Your task to perform on an android device: open sync settings in chrome Image 0: 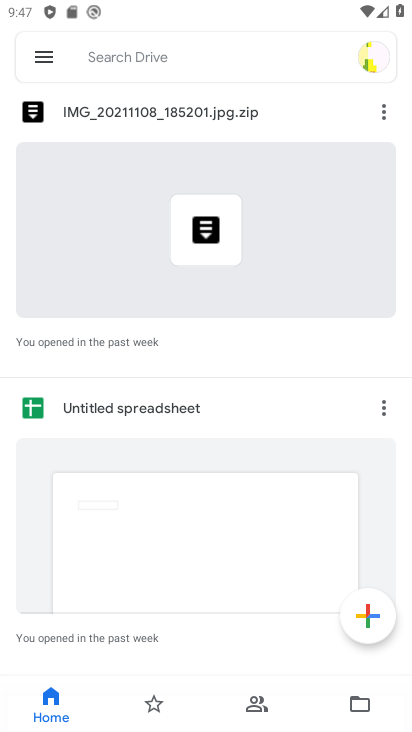
Step 0: press home button
Your task to perform on an android device: open sync settings in chrome Image 1: 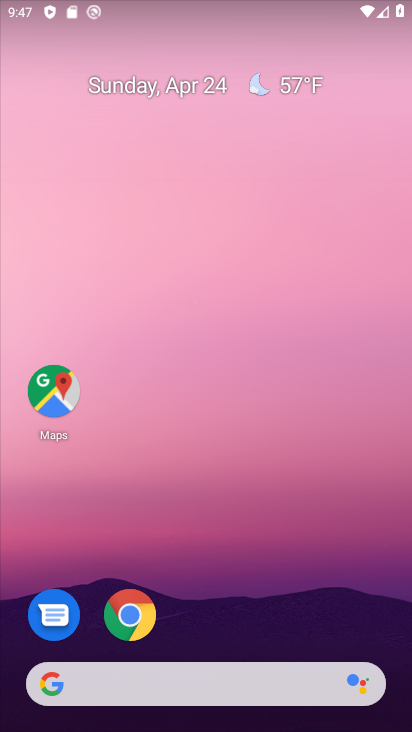
Step 1: click (127, 611)
Your task to perform on an android device: open sync settings in chrome Image 2: 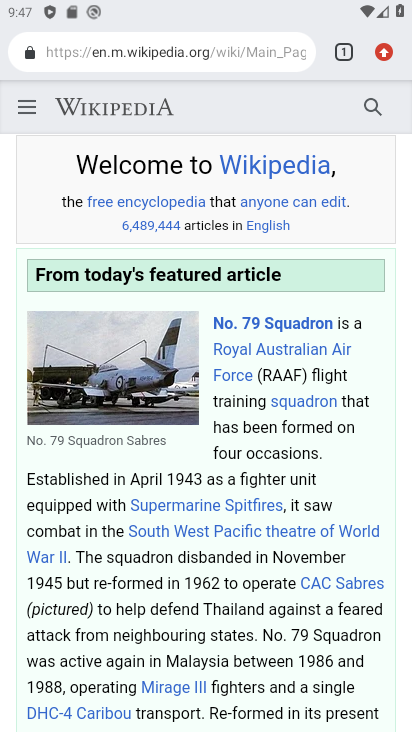
Step 2: click (380, 51)
Your task to perform on an android device: open sync settings in chrome Image 3: 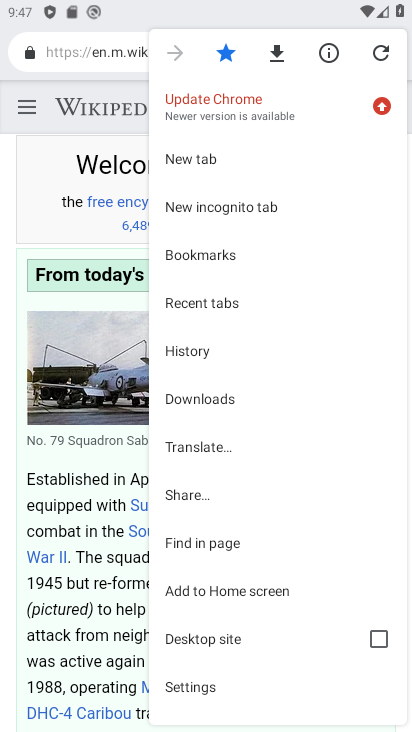
Step 3: click (184, 688)
Your task to perform on an android device: open sync settings in chrome Image 4: 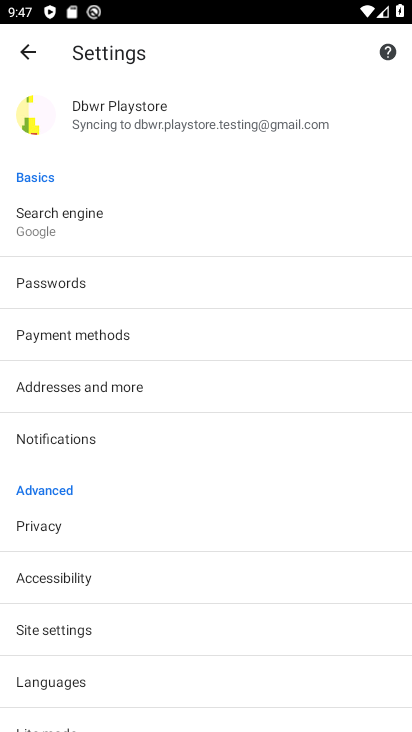
Step 4: click (118, 112)
Your task to perform on an android device: open sync settings in chrome Image 5: 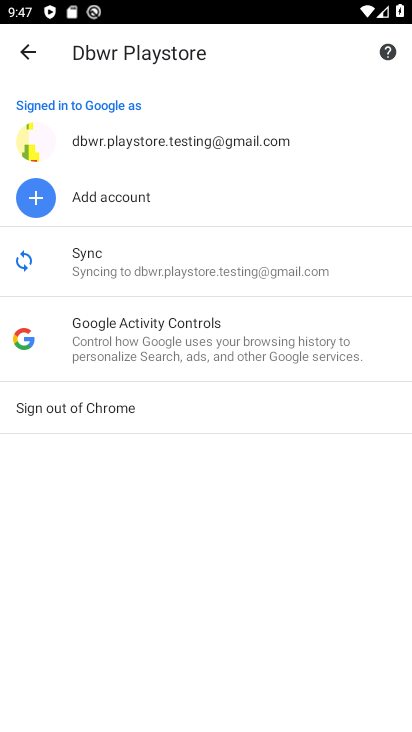
Step 5: click (80, 264)
Your task to perform on an android device: open sync settings in chrome Image 6: 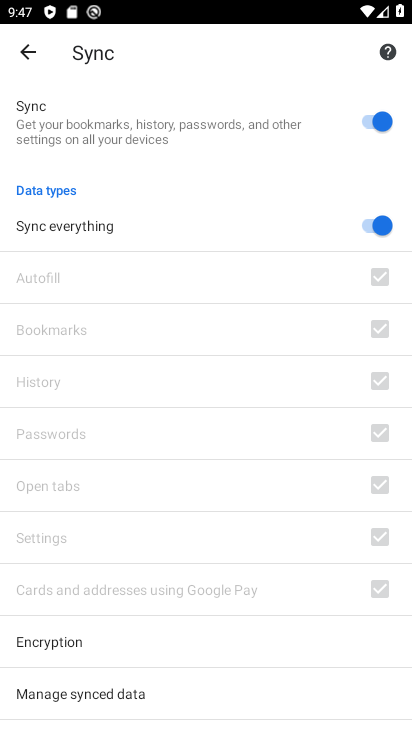
Step 6: task complete